Your task to perform on an android device: toggle show notifications on the lock screen Image 0: 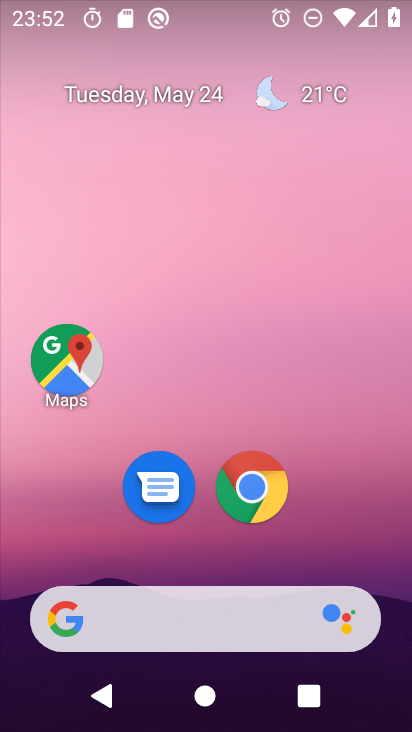
Step 0: drag from (371, 574) to (373, 24)
Your task to perform on an android device: toggle show notifications on the lock screen Image 1: 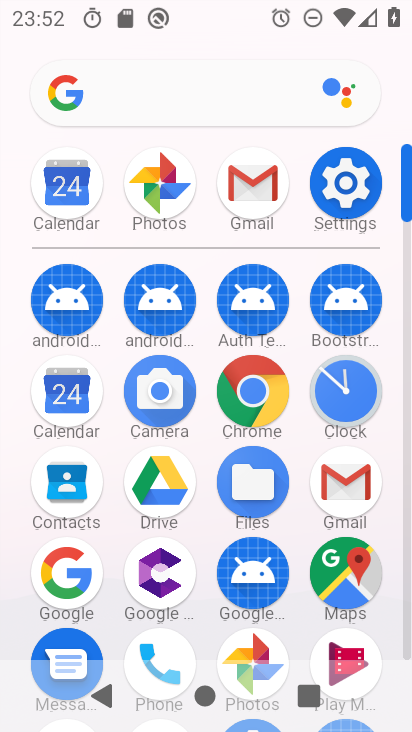
Step 1: click (343, 190)
Your task to perform on an android device: toggle show notifications on the lock screen Image 2: 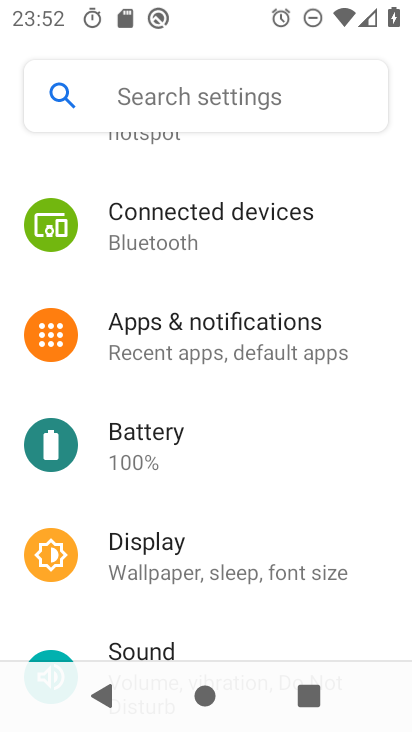
Step 2: click (181, 346)
Your task to perform on an android device: toggle show notifications on the lock screen Image 3: 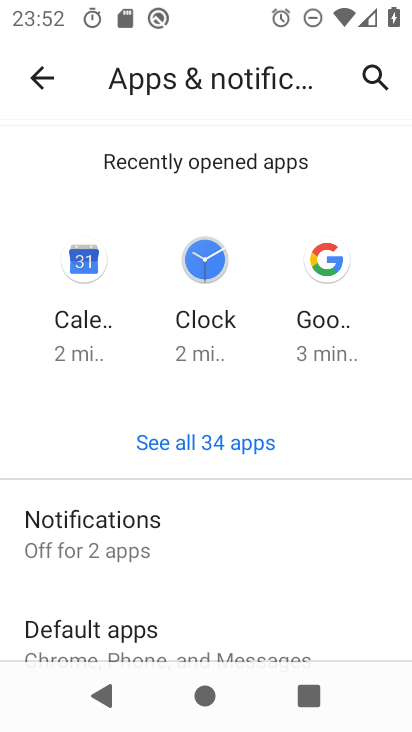
Step 3: click (87, 530)
Your task to perform on an android device: toggle show notifications on the lock screen Image 4: 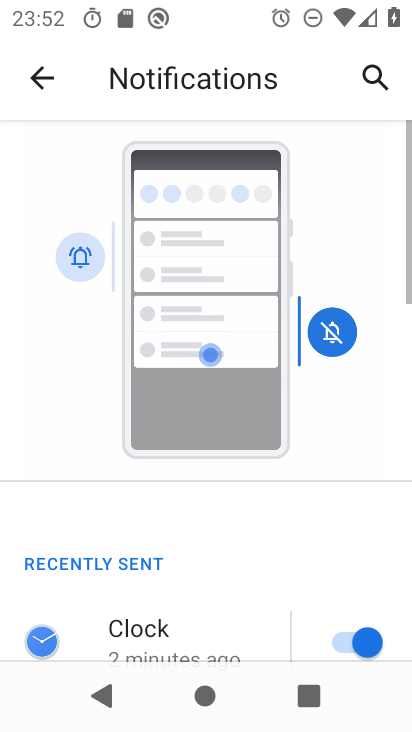
Step 4: drag from (176, 598) to (164, 18)
Your task to perform on an android device: toggle show notifications on the lock screen Image 5: 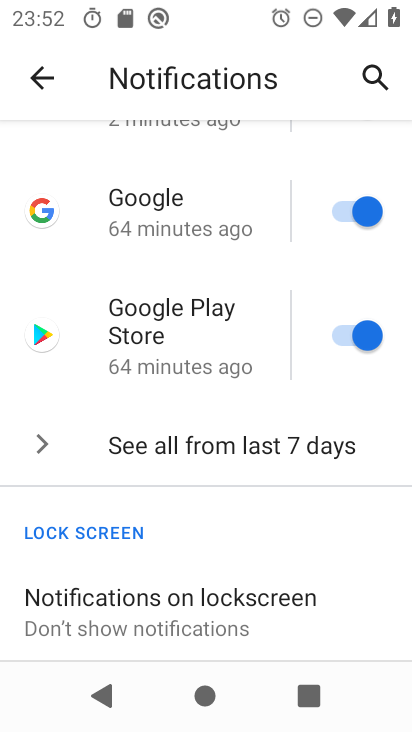
Step 5: drag from (159, 522) to (155, 231)
Your task to perform on an android device: toggle show notifications on the lock screen Image 6: 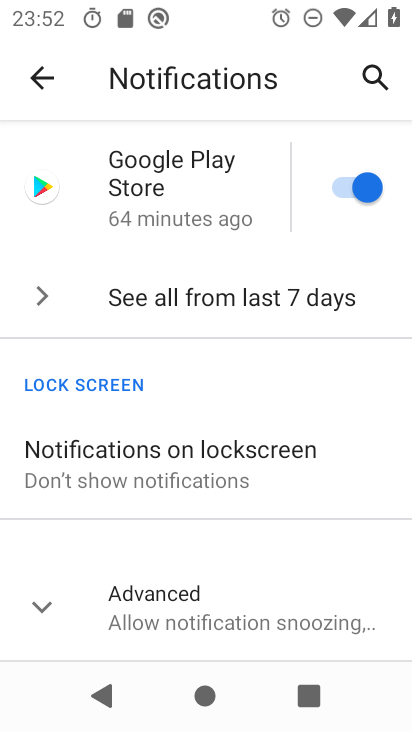
Step 6: click (160, 470)
Your task to perform on an android device: toggle show notifications on the lock screen Image 7: 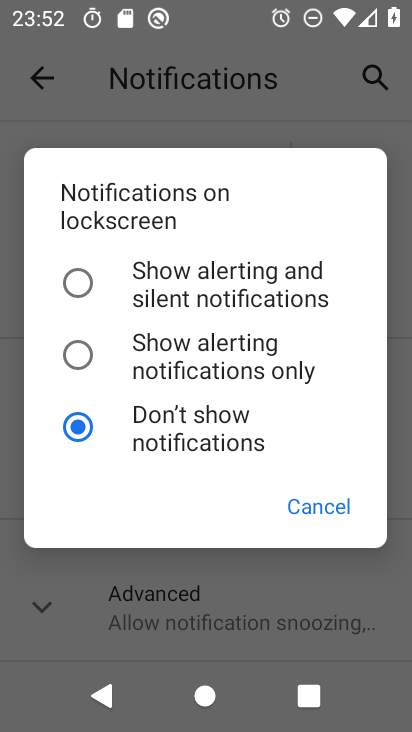
Step 7: click (71, 279)
Your task to perform on an android device: toggle show notifications on the lock screen Image 8: 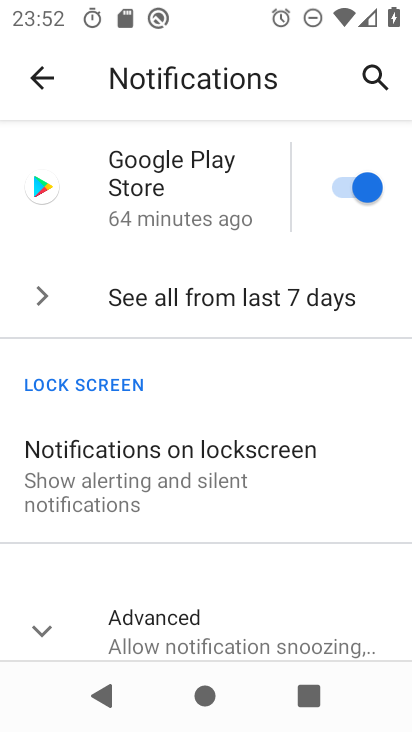
Step 8: task complete